Your task to perform on an android device: Open calendar and show me the fourth week of next month Image 0: 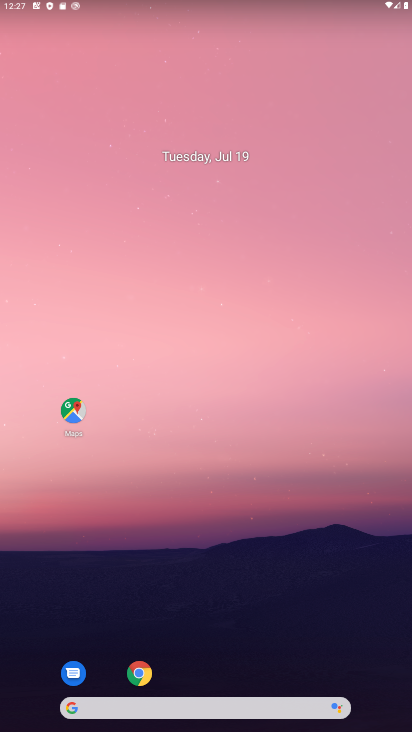
Step 0: drag from (281, 636) to (199, 77)
Your task to perform on an android device: Open calendar and show me the fourth week of next month Image 1: 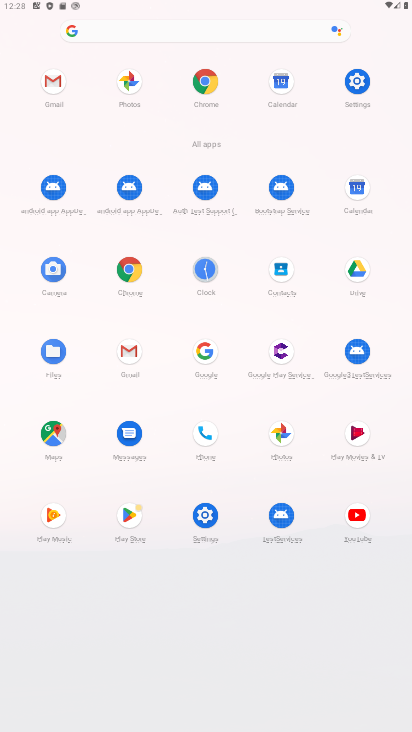
Step 1: click (274, 80)
Your task to perform on an android device: Open calendar and show me the fourth week of next month Image 2: 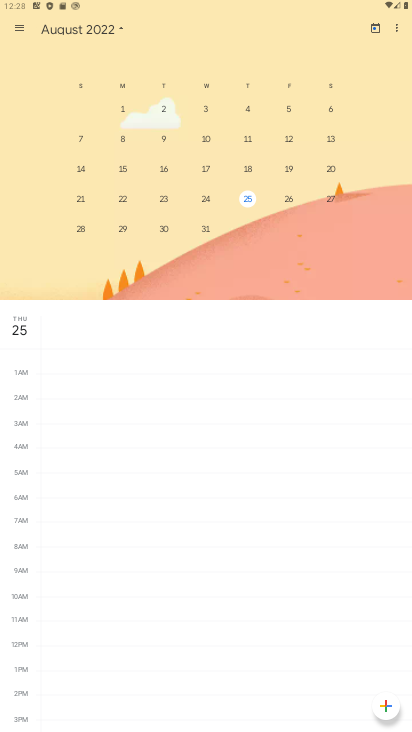
Step 2: click (19, 19)
Your task to perform on an android device: Open calendar and show me the fourth week of next month Image 3: 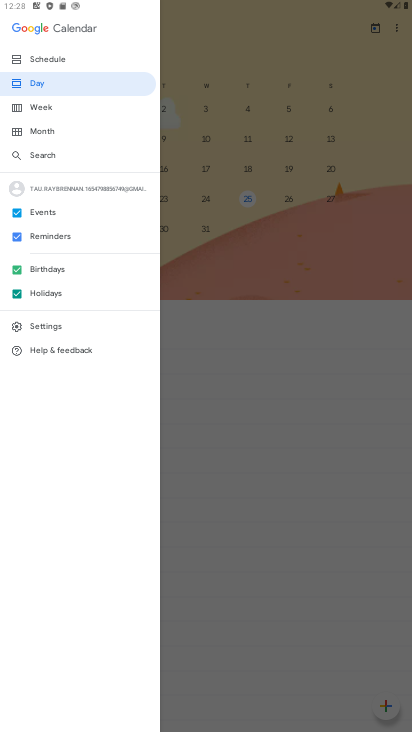
Step 3: click (38, 105)
Your task to perform on an android device: Open calendar and show me the fourth week of next month Image 4: 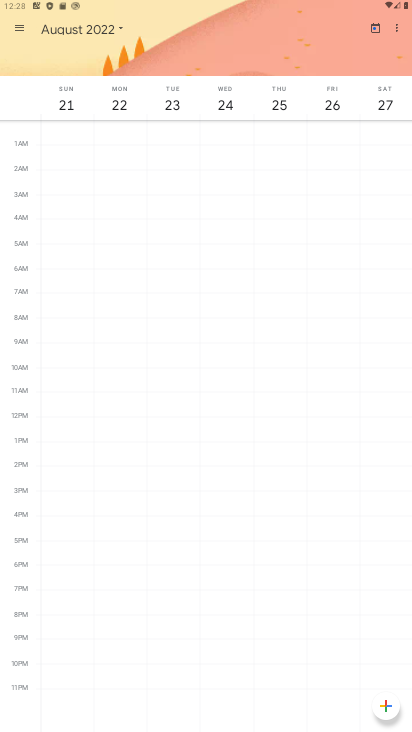
Step 4: task complete